Your task to perform on an android device: Add macbook air to the cart on costco, then select checkout. Image 0: 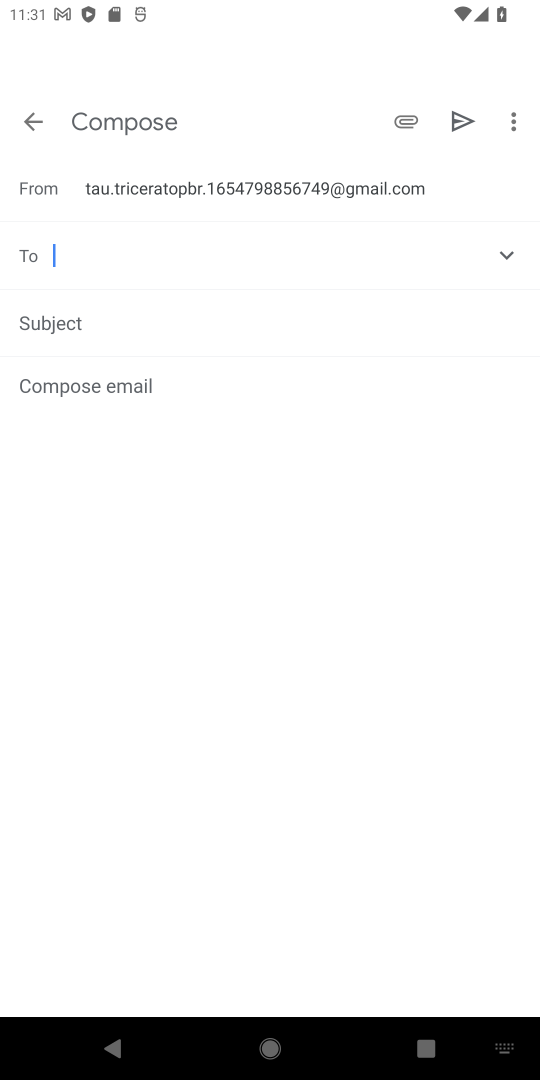
Step 0: press home button
Your task to perform on an android device: Add macbook air to the cart on costco, then select checkout. Image 1: 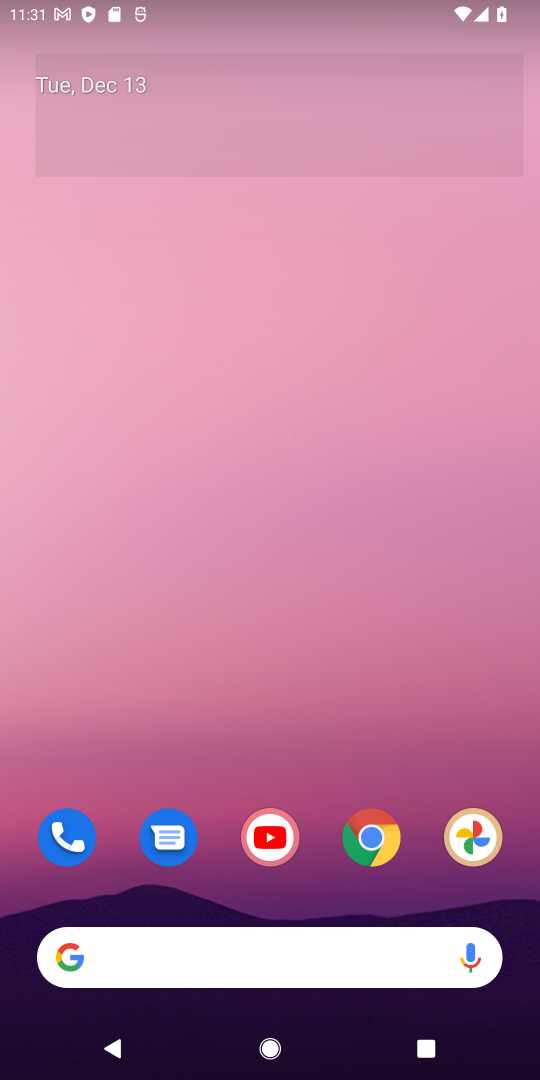
Step 1: click (373, 832)
Your task to perform on an android device: Add macbook air to the cart on costco, then select checkout. Image 2: 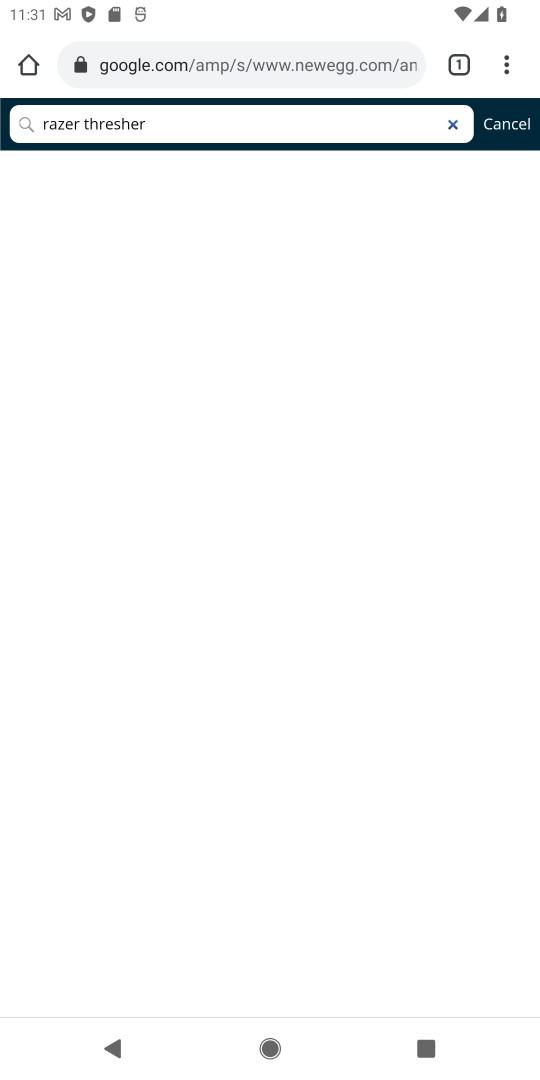
Step 2: click (174, 76)
Your task to perform on an android device: Add macbook air to the cart on costco, then select checkout. Image 3: 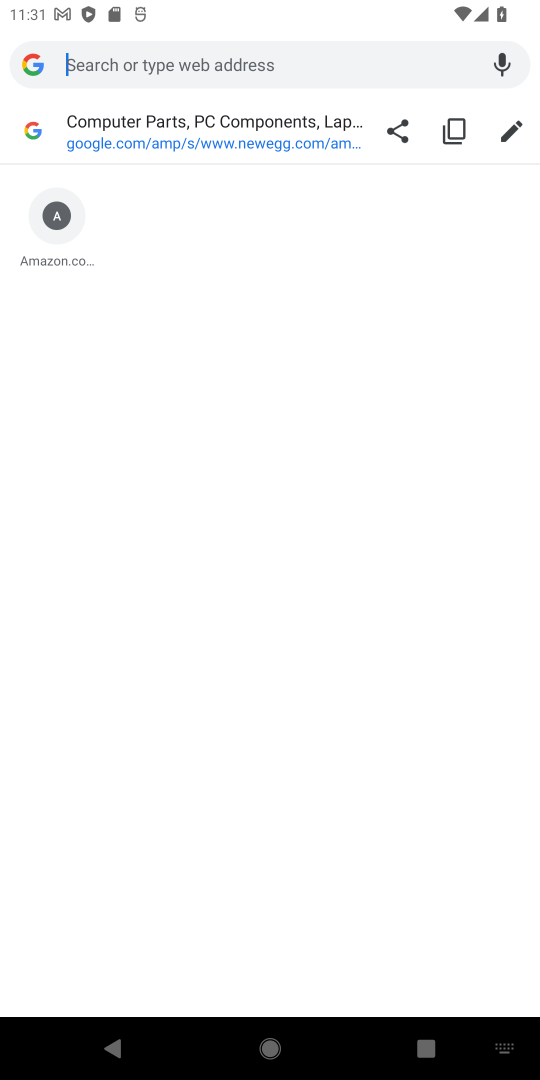
Step 3: type "costco"
Your task to perform on an android device: Add macbook air to the cart on costco, then select checkout. Image 4: 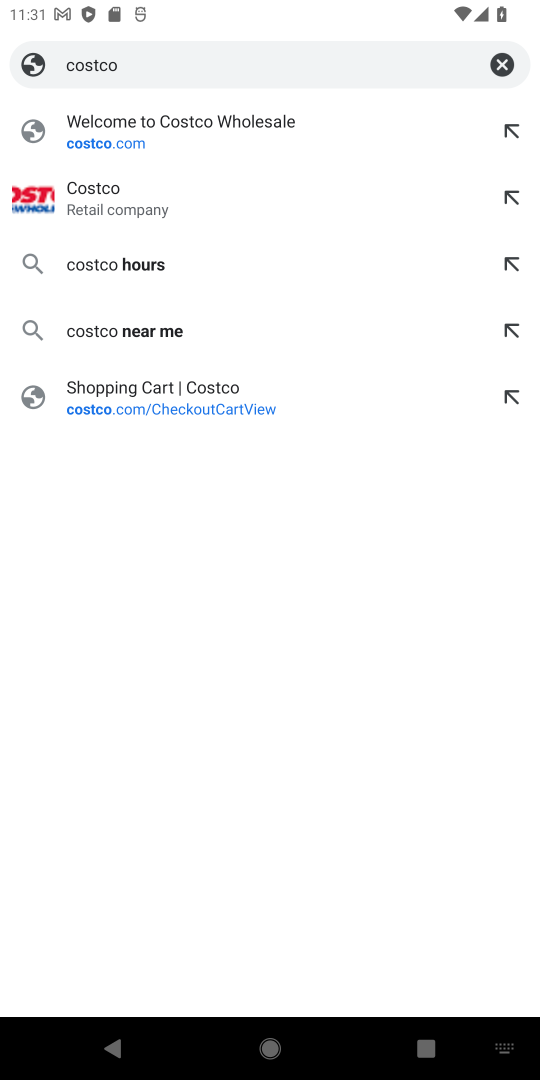
Step 4: click (227, 187)
Your task to perform on an android device: Add macbook air to the cart on costco, then select checkout. Image 5: 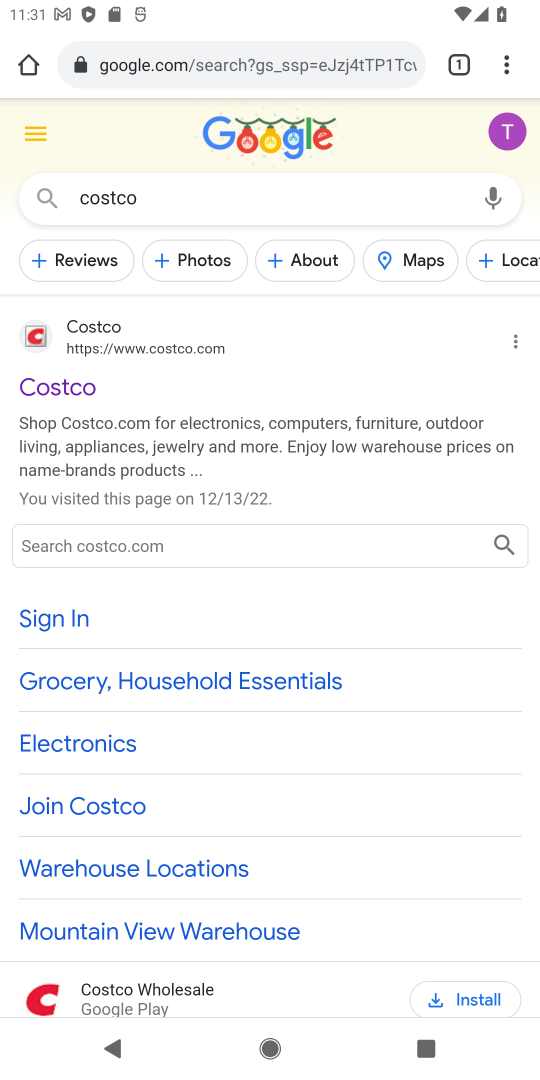
Step 5: click (88, 363)
Your task to perform on an android device: Add macbook air to the cart on costco, then select checkout. Image 6: 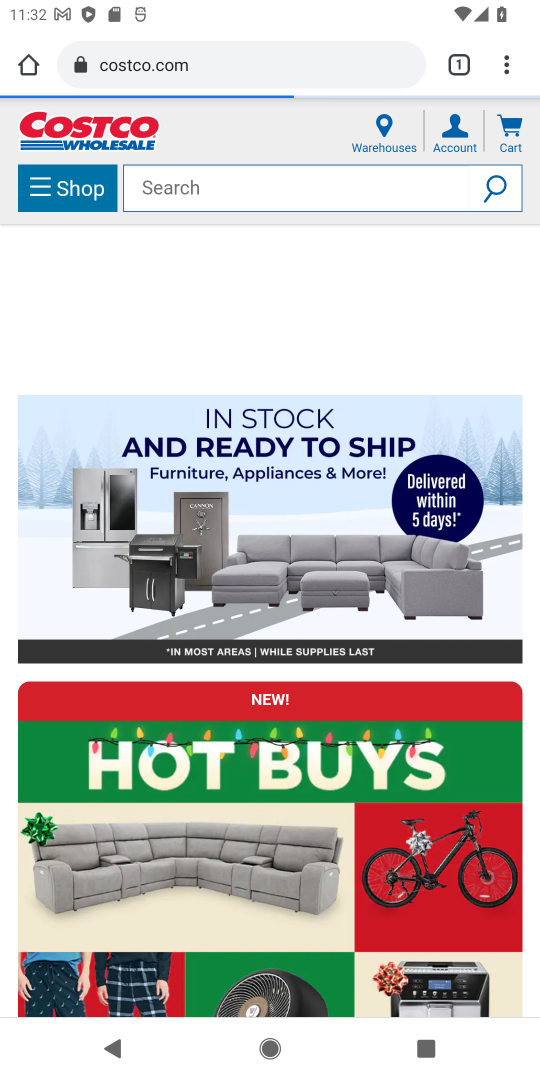
Step 6: click (199, 168)
Your task to perform on an android device: Add macbook air to the cart on costco, then select checkout. Image 7: 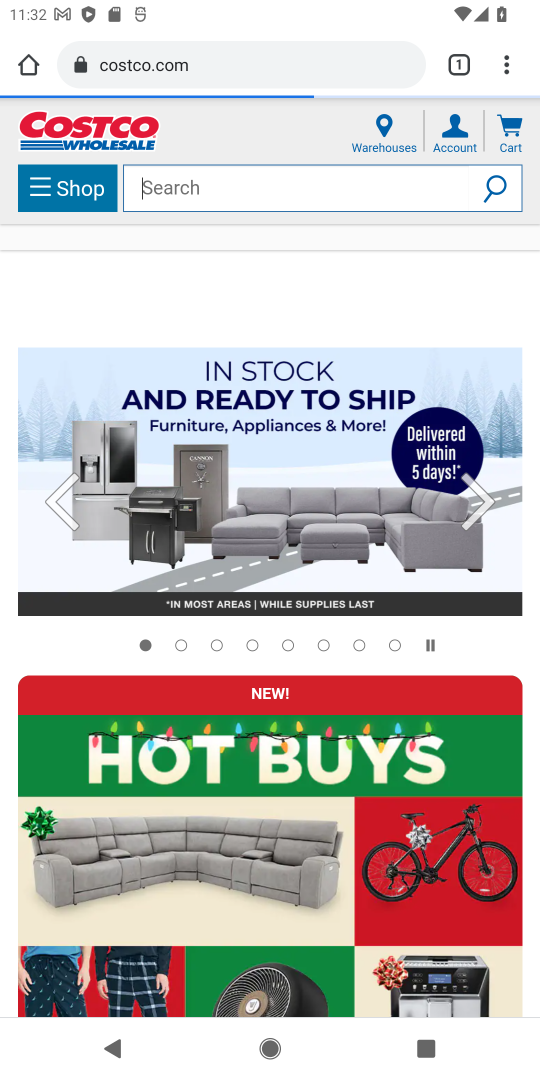
Step 7: click (215, 188)
Your task to perform on an android device: Add macbook air to the cart on costco, then select checkout. Image 8: 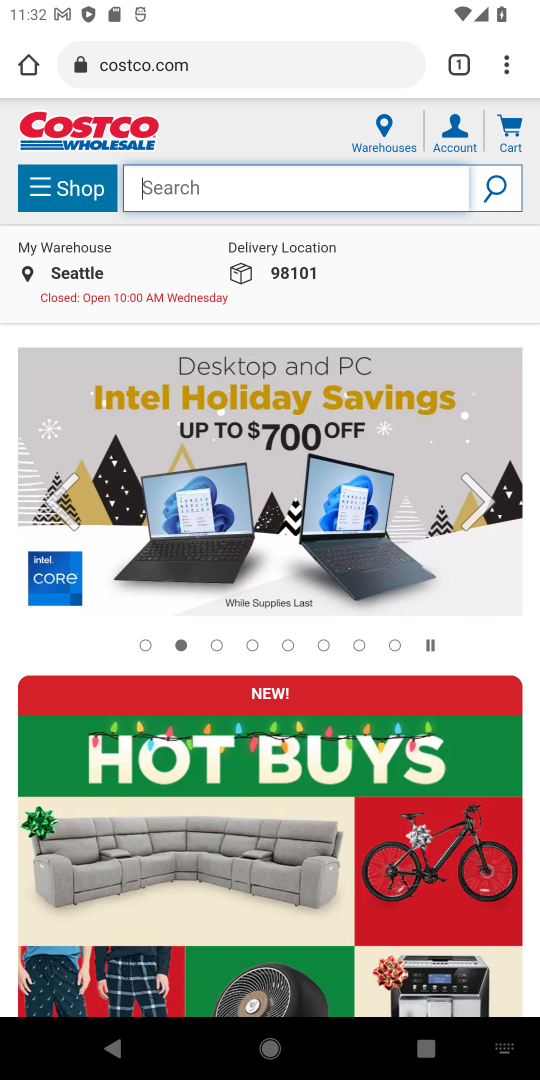
Step 8: type "macbook air"
Your task to perform on an android device: Add macbook air to the cart on costco, then select checkout. Image 9: 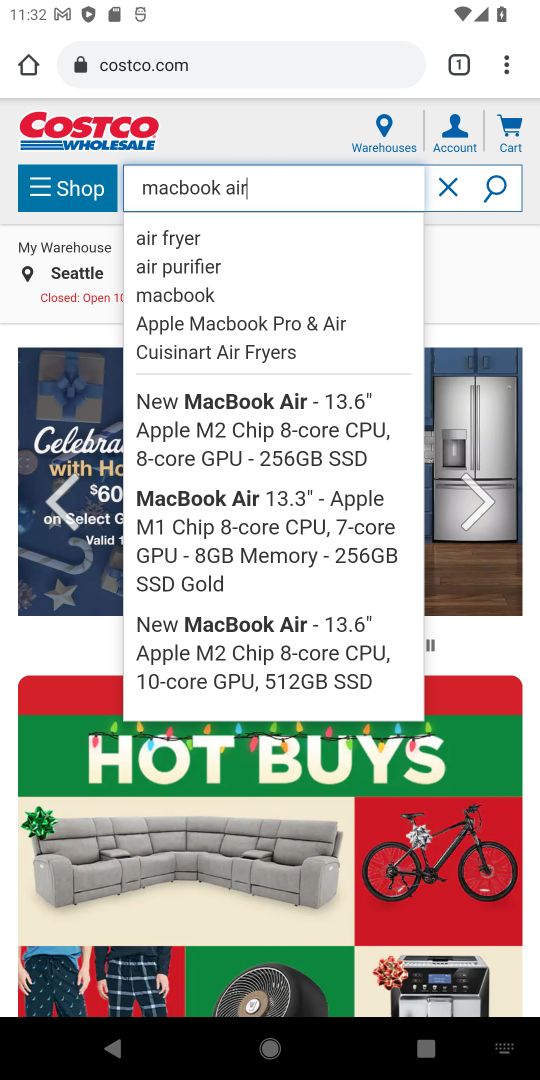
Step 9: click (486, 198)
Your task to perform on an android device: Add macbook air to the cart on costco, then select checkout. Image 10: 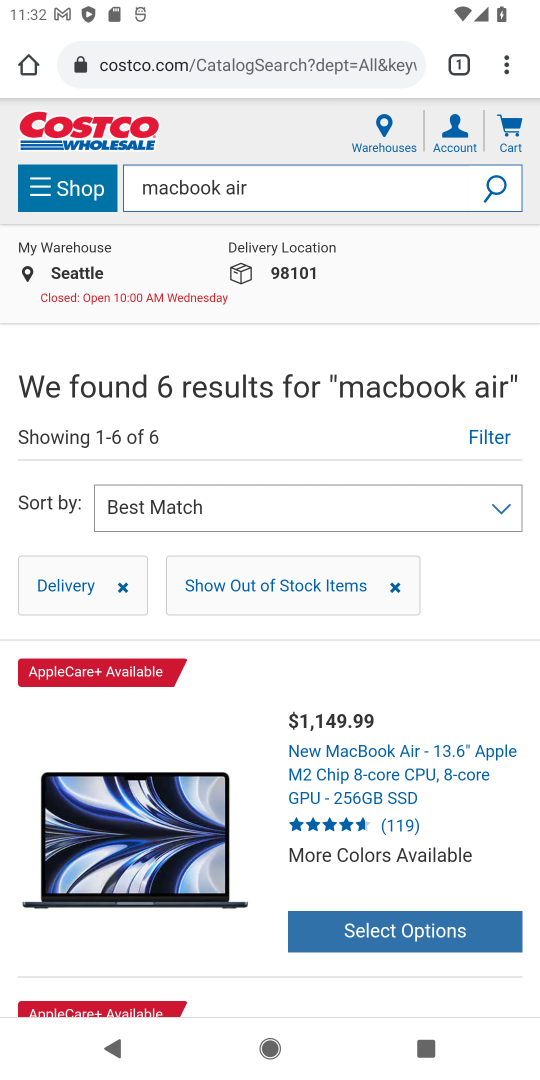
Step 10: click (430, 928)
Your task to perform on an android device: Add macbook air to the cart on costco, then select checkout. Image 11: 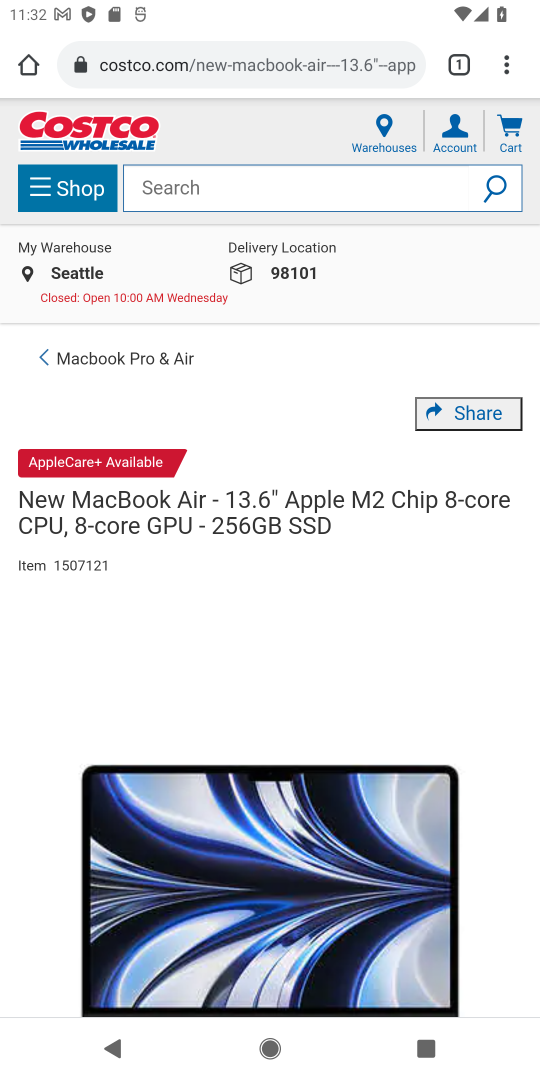
Step 11: drag from (304, 943) to (330, 301)
Your task to perform on an android device: Add macbook air to the cart on costco, then select checkout. Image 12: 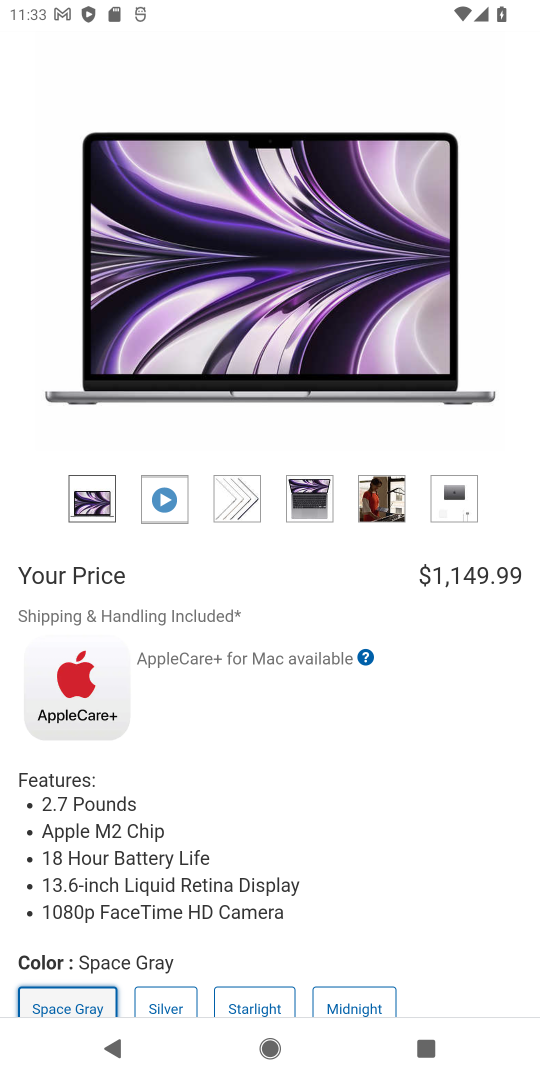
Step 12: drag from (359, 715) to (351, 495)
Your task to perform on an android device: Add macbook air to the cart on costco, then select checkout. Image 13: 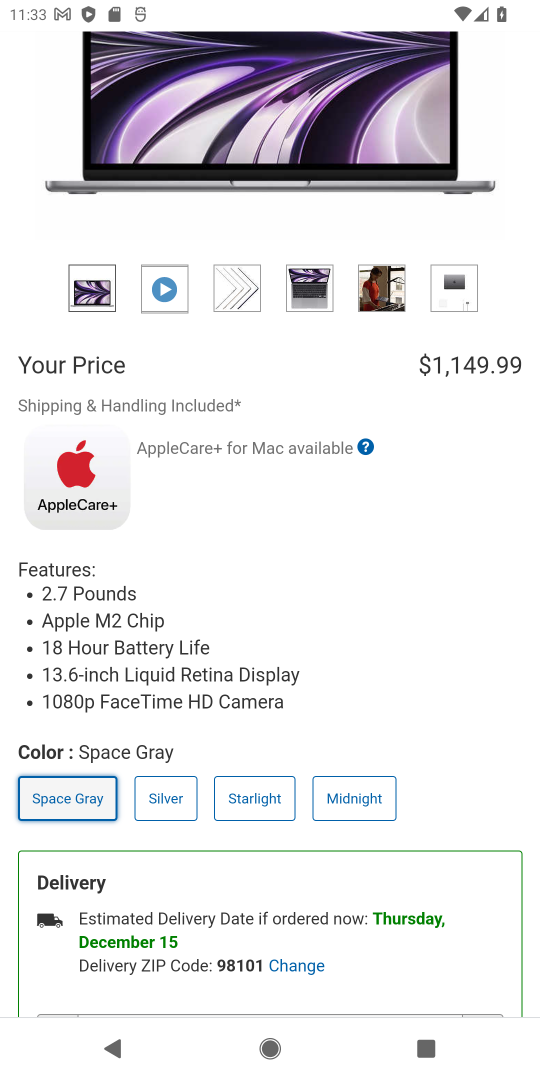
Step 13: drag from (314, 757) to (310, 579)
Your task to perform on an android device: Add macbook air to the cart on costco, then select checkout. Image 14: 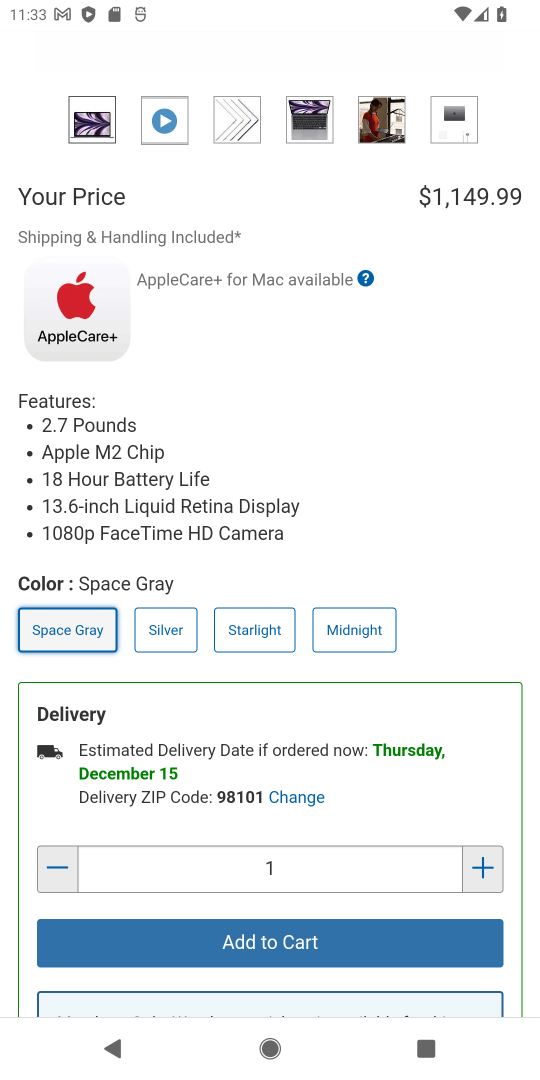
Step 14: click (270, 924)
Your task to perform on an android device: Add macbook air to the cart on costco, then select checkout. Image 15: 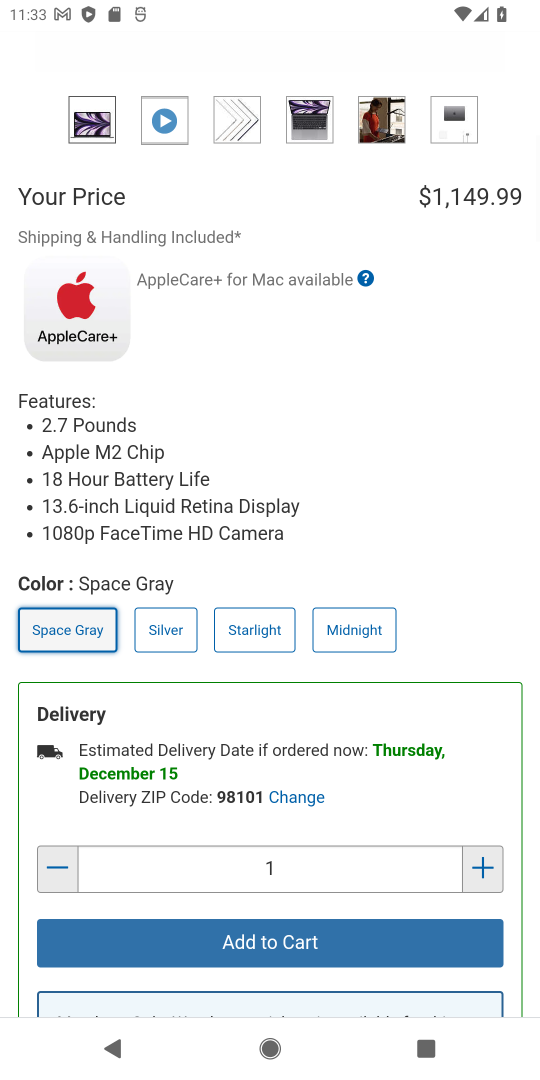
Step 15: task complete